Your task to perform on an android device: turn notification dots on Image 0: 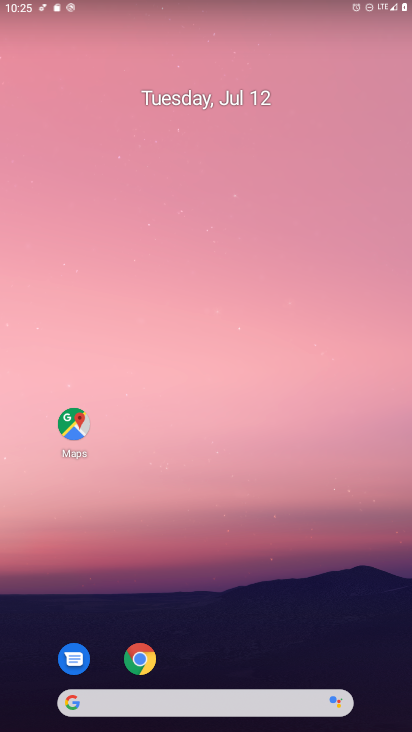
Step 0: drag from (179, 693) to (238, 119)
Your task to perform on an android device: turn notification dots on Image 1: 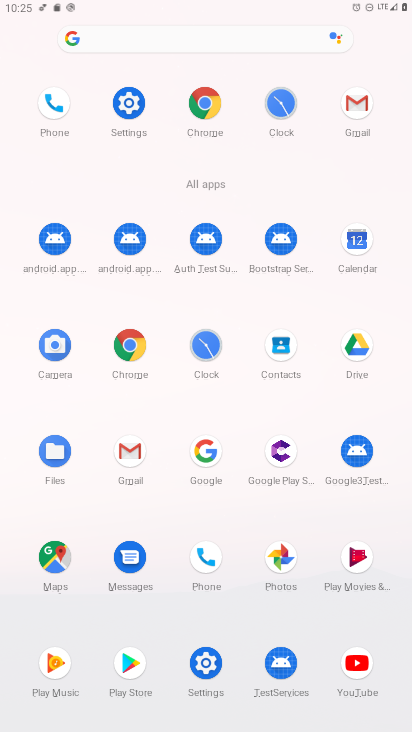
Step 1: click (130, 125)
Your task to perform on an android device: turn notification dots on Image 2: 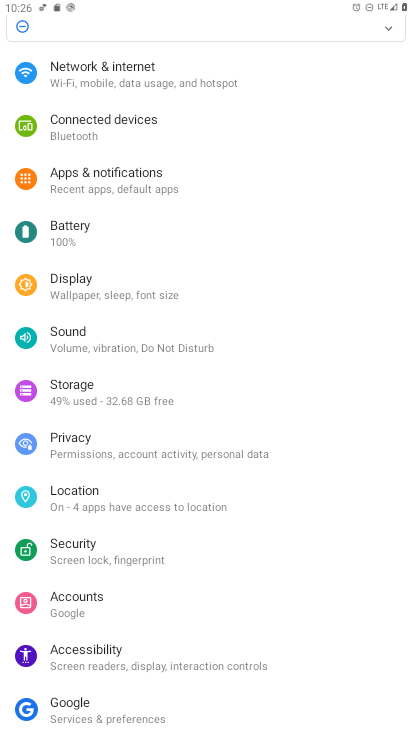
Step 2: click (109, 184)
Your task to perform on an android device: turn notification dots on Image 3: 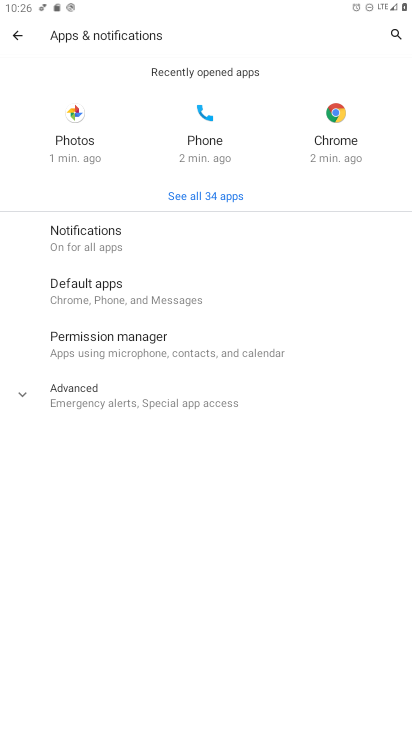
Step 3: click (100, 240)
Your task to perform on an android device: turn notification dots on Image 4: 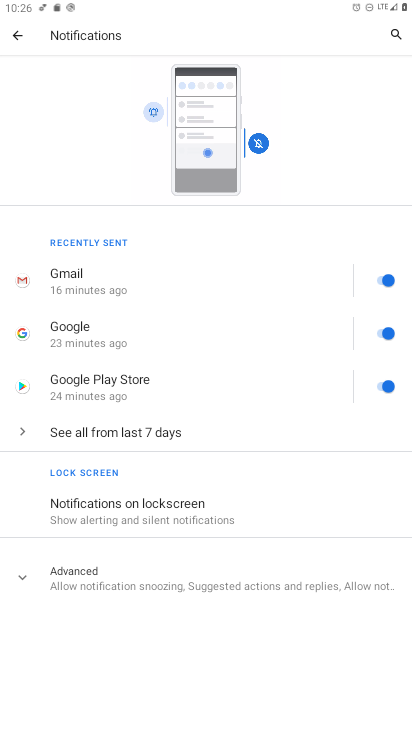
Step 4: click (123, 582)
Your task to perform on an android device: turn notification dots on Image 5: 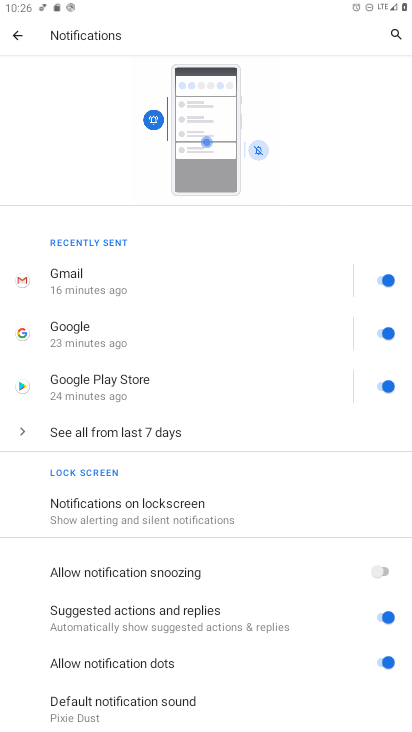
Step 5: task complete